Your task to perform on an android device: delete the emails in spam in the gmail app Image 0: 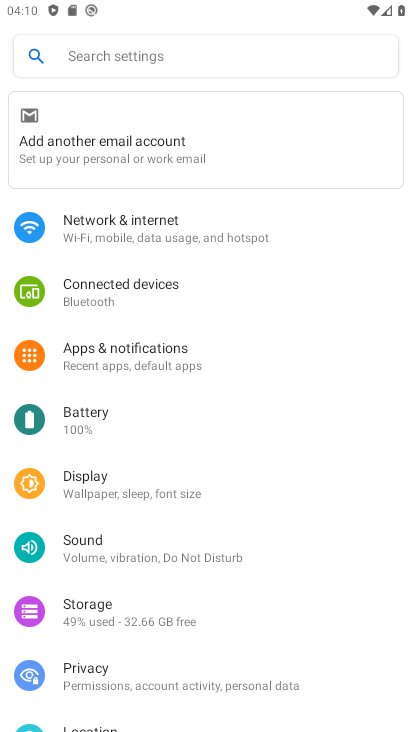
Step 0: drag from (172, 516) to (182, 20)
Your task to perform on an android device: delete the emails in spam in the gmail app Image 1: 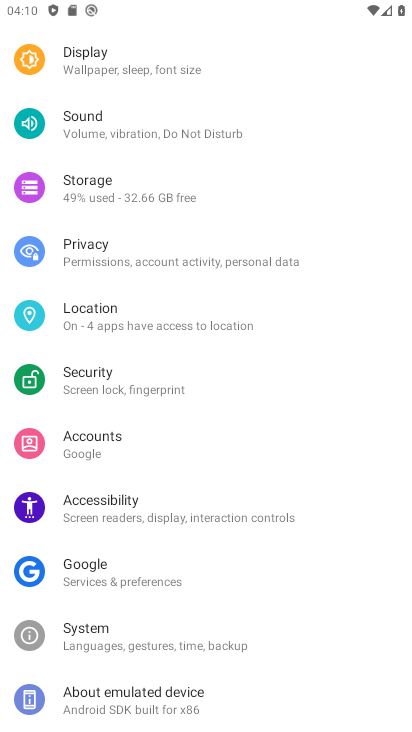
Step 1: press home button
Your task to perform on an android device: delete the emails in spam in the gmail app Image 2: 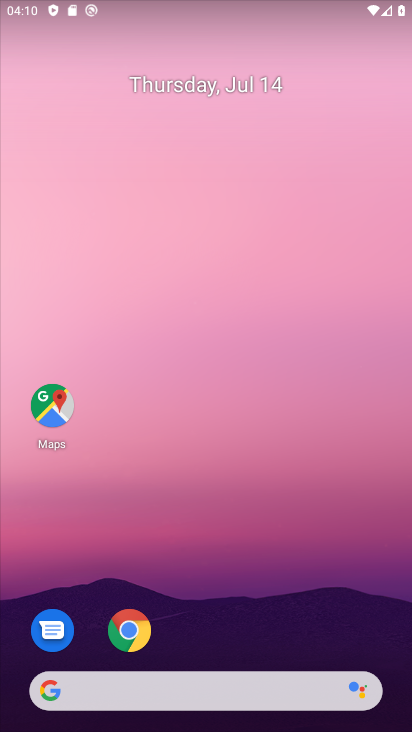
Step 2: drag from (193, 648) to (208, 10)
Your task to perform on an android device: delete the emails in spam in the gmail app Image 3: 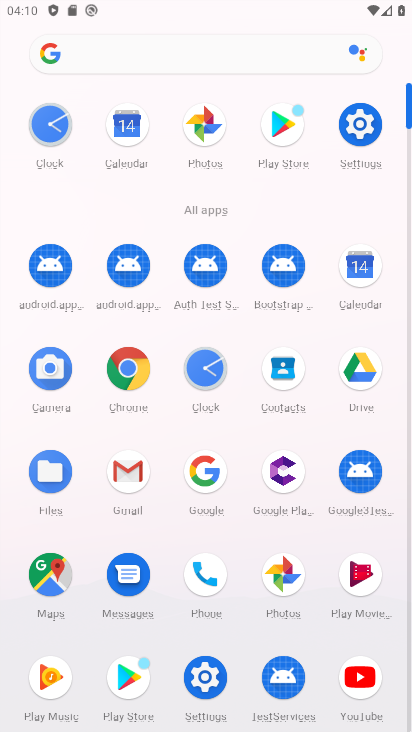
Step 3: click (129, 470)
Your task to perform on an android device: delete the emails in spam in the gmail app Image 4: 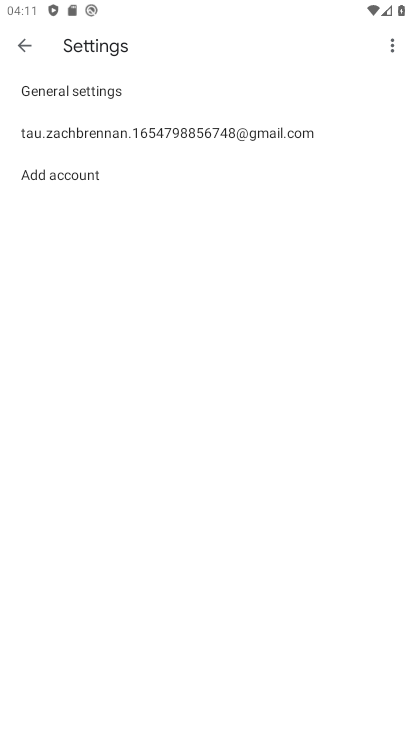
Step 4: click (22, 45)
Your task to perform on an android device: delete the emails in spam in the gmail app Image 5: 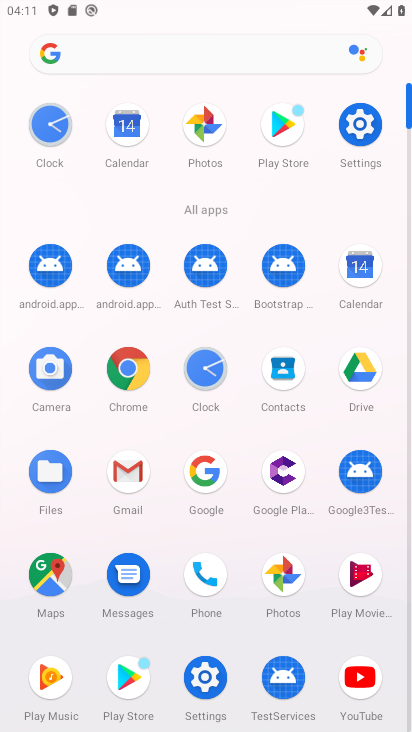
Step 5: click (125, 465)
Your task to perform on an android device: delete the emails in spam in the gmail app Image 6: 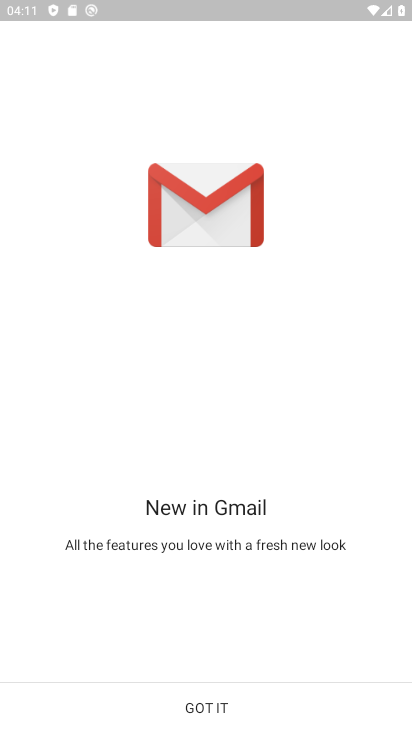
Step 6: click (210, 703)
Your task to perform on an android device: delete the emails in spam in the gmail app Image 7: 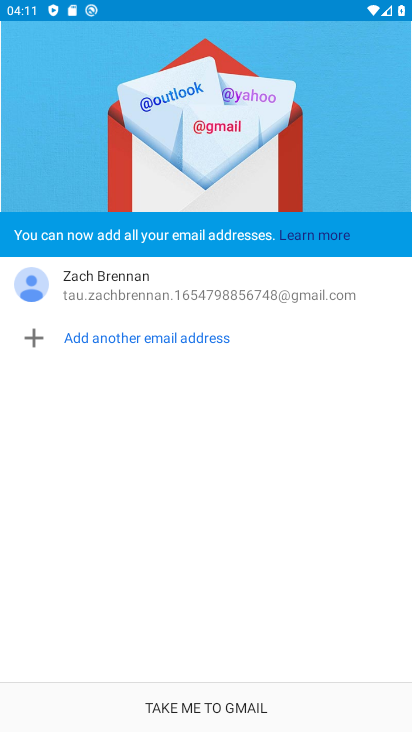
Step 7: click (207, 709)
Your task to perform on an android device: delete the emails in spam in the gmail app Image 8: 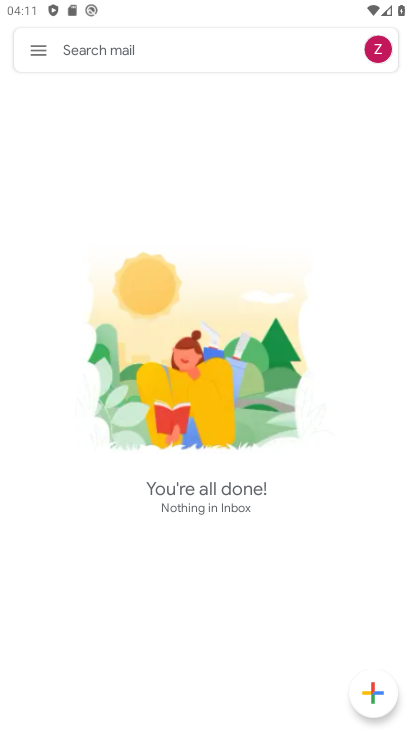
Step 8: click (36, 45)
Your task to perform on an android device: delete the emails in spam in the gmail app Image 9: 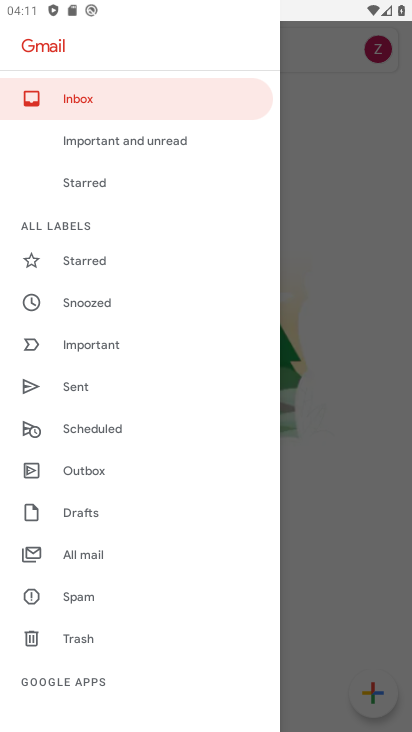
Step 9: click (94, 584)
Your task to perform on an android device: delete the emails in spam in the gmail app Image 10: 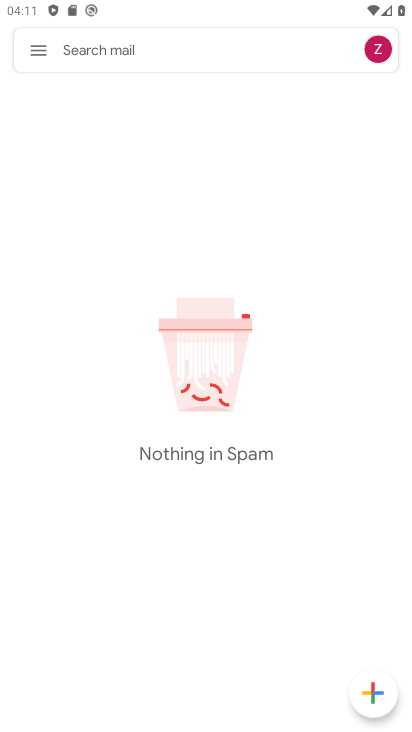
Step 10: task complete